Your task to perform on an android device: Open eBay Image 0: 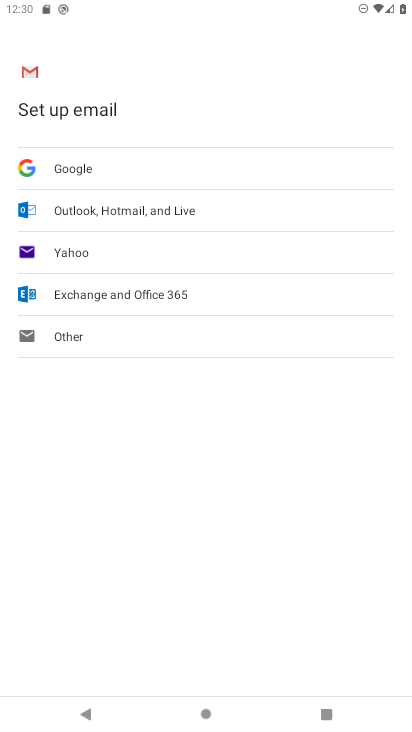
Step 0: press home button
Your task to perform on an android device: Open eBay Image 1: 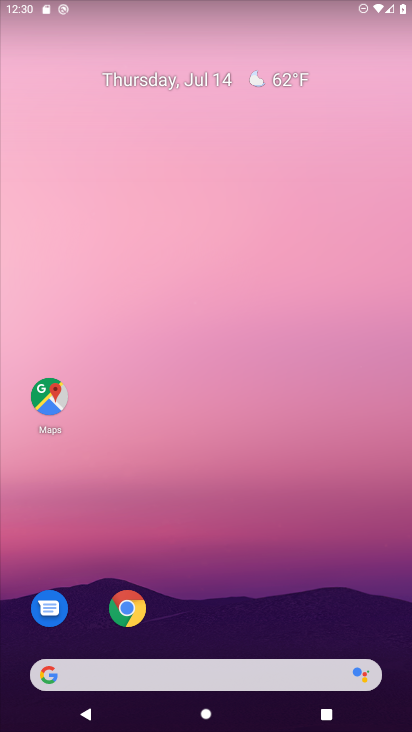
Step 1: drag from (226, 717) to (190, 115)
Your task to perform on an android device: Open eBay Image 2: 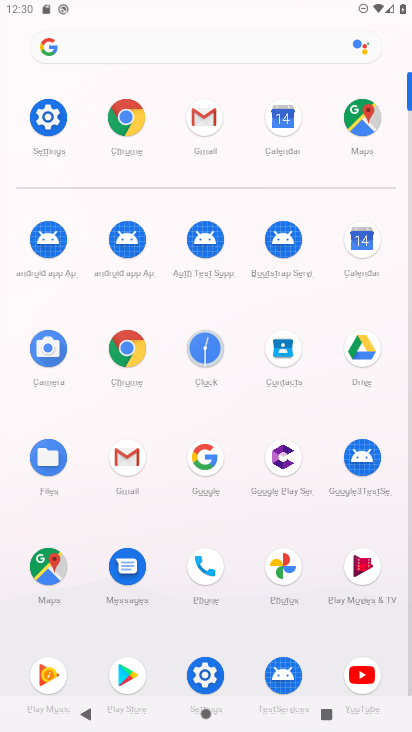
Step 2: click (122, 113)
Your task to perform on an android device: Open eBay Image 3: 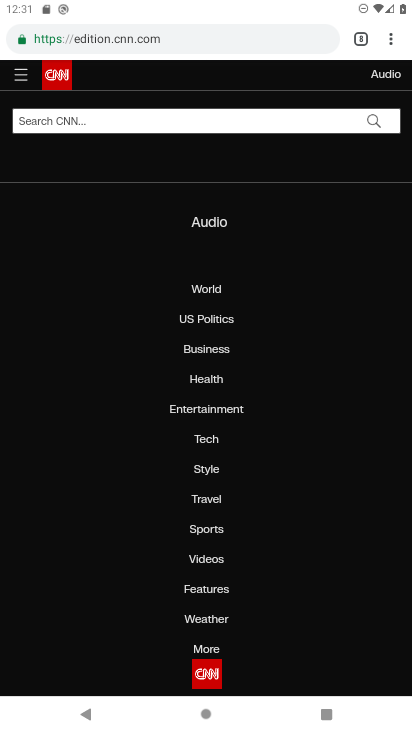
Step 3: click (392, 38)
Your task to perform on an android device: Open eBay Image 4: 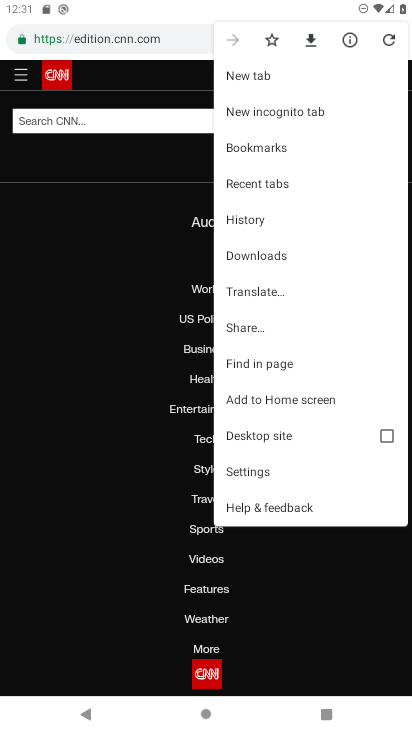
Step 4: click (241, 71)
Your task to perform on an android device: Open eBay Image 5: 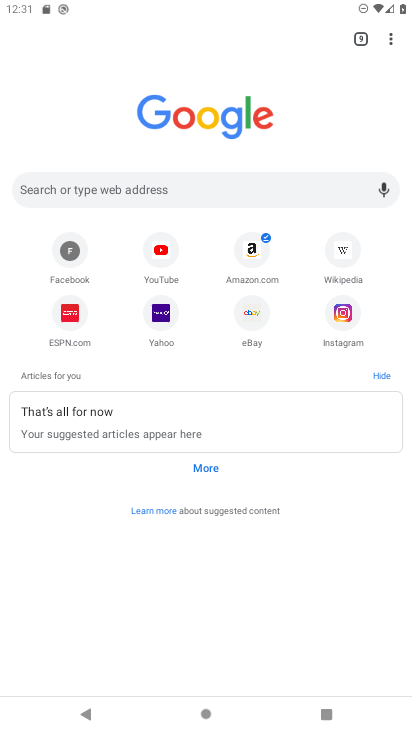
Step 5: click (247, 310)
Your task to perform on an android device: Open eBay Image 6: 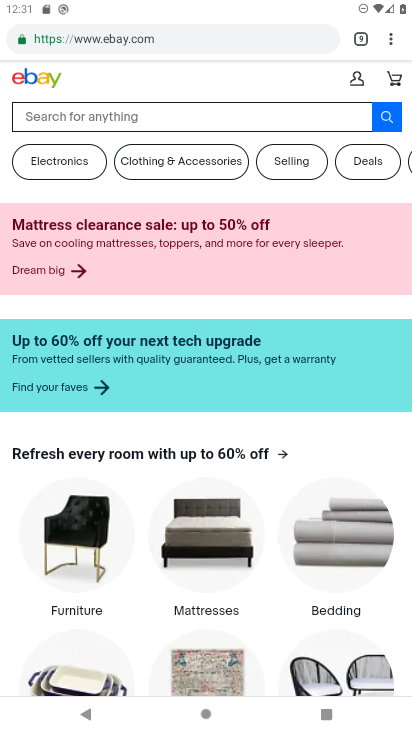
Step 6: task complete